Your task to perform on an android device: Open Chrome and go to settings Image 0: 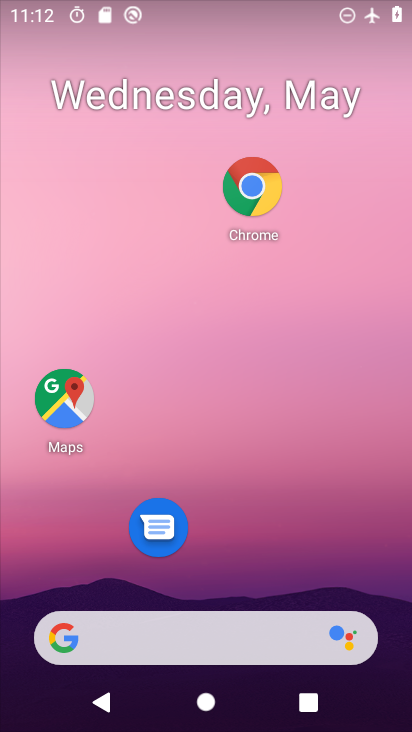
Step 0: drag from (244, 580) to (225, 179)
Your task to perform on an android device: Open Chrome and go to settings Image 1: 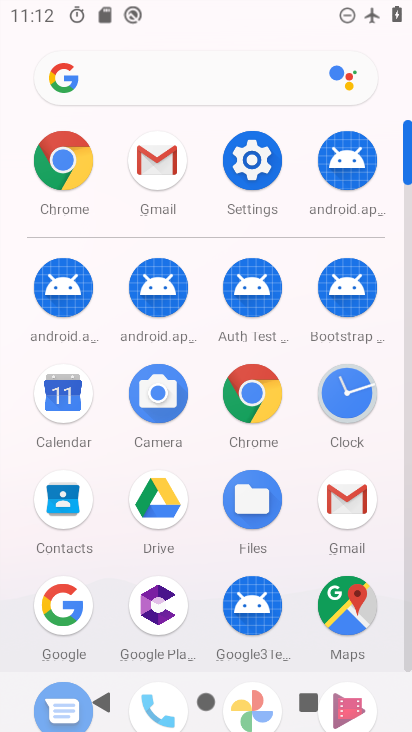
Step 1: click (58, 174)
Your task to perform on an android device: Open Chrome and go to settings Image 2: 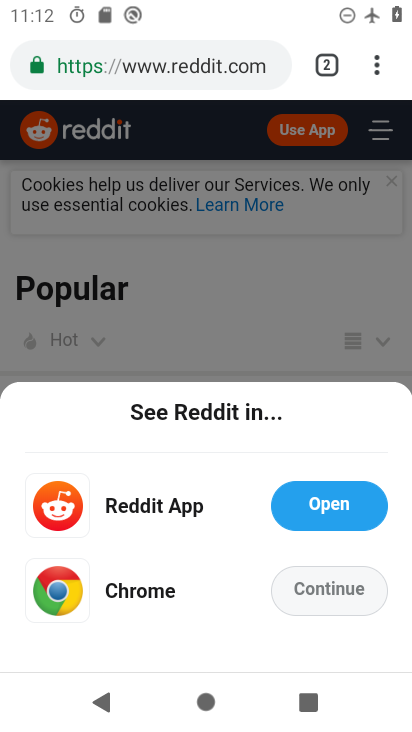
Step 2: click (371, 72)
Your task to perform on an android device: Open Chrome and go to settings Image 3: 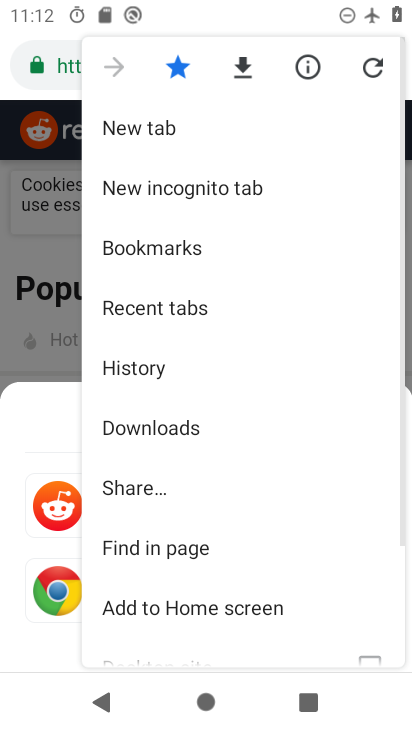
Step 3: drag from (230, 523) to (277, 193)
Your task to perform on an android device: Open Chrome and go to settings Image 4: 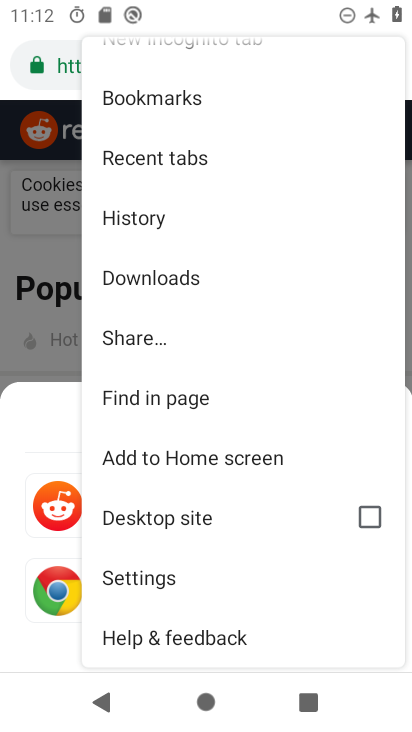
Step 4: click (185, 579)
Your task to perform on an android device: Open Chrome and go to settings Image 5: 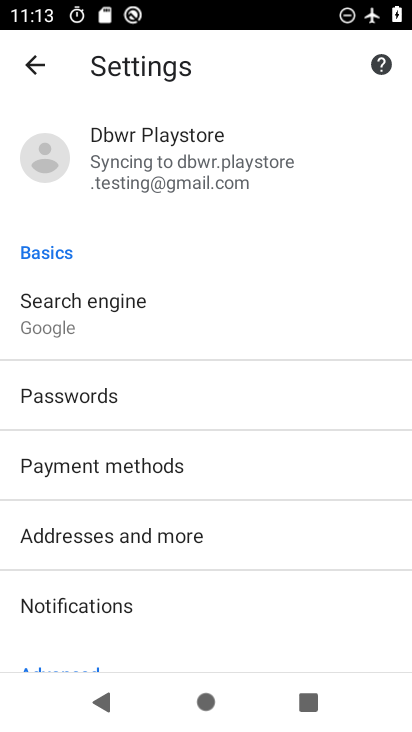
Step 5: task complete